Your task to perform on an android device: turn smart compose on in the gmail app Image 0: 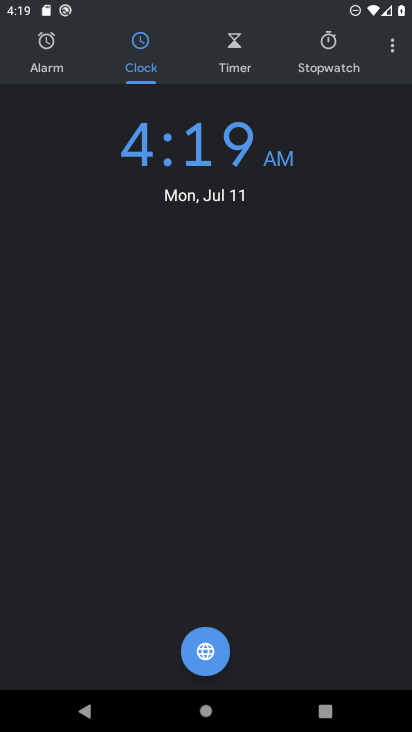
Step 0: press home button
Your task to perform on an android device: turn smart compose on in the gmail app Image 1: 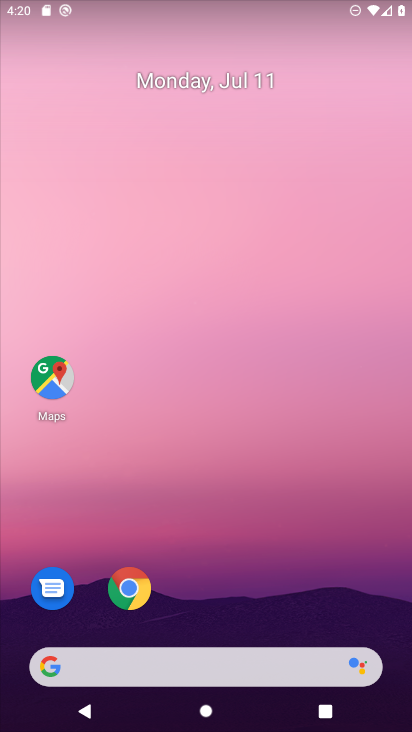
Step 1: drag from (151, 691) to (365, 40)
Your task to perform on an android device: turn smart compose on in the gmail app Image 2: 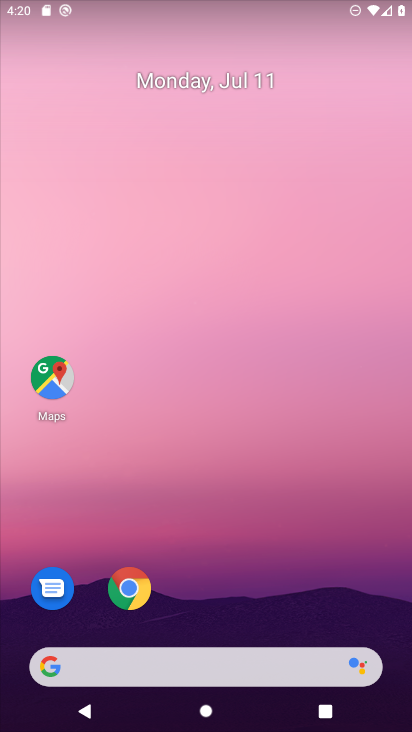
Step 2: drag from (151, 703) to (309, 18)
Your task to perform on an android device: turn smart compose on in the gmail app Image 3: 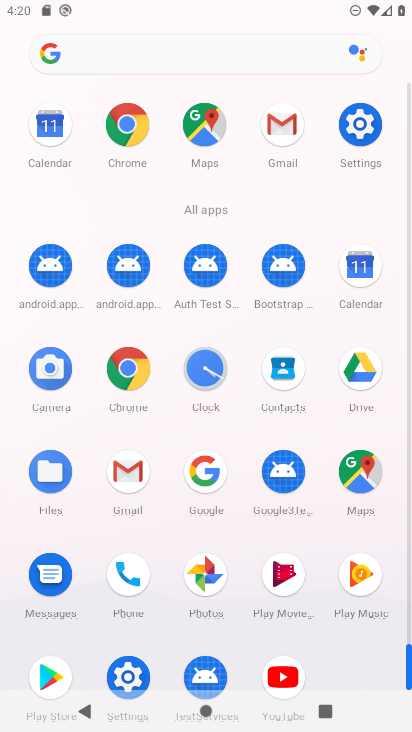
Step 3: click (290, 177)
Your task to perform on an android device: turn smart compose on in the gmail app Image 4: 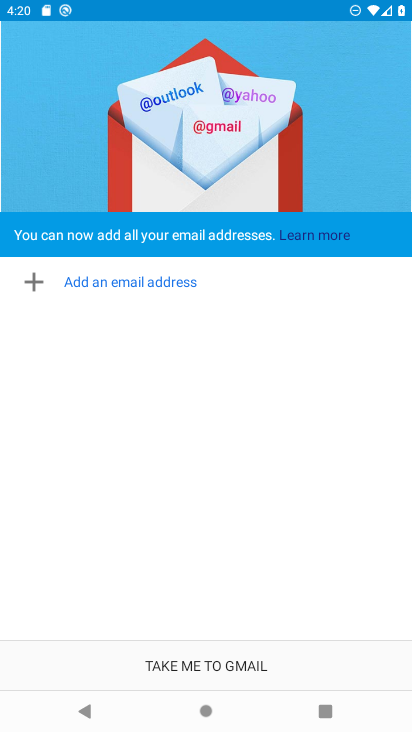
Step 4: click (260, 666)
Your task to perform on an android device: turn smart compose on in the gmail app Image 5: 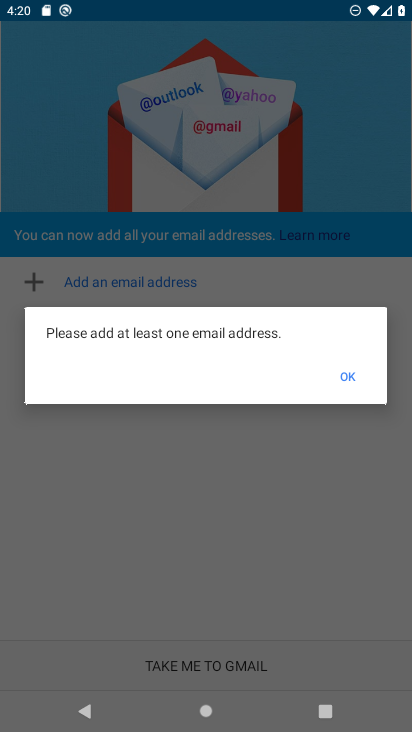
Step 5: task complete